Your task to perform on an android device: Go to accessibility settings Image 0: 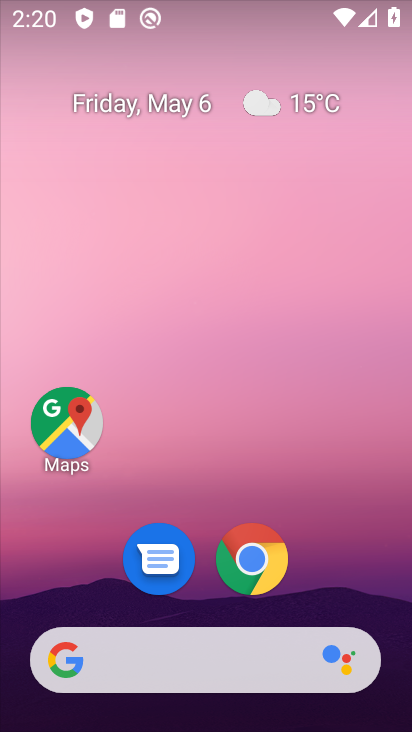
Step 0: drag from (343, 570) to (320, 207)
Your task to perform on an android device: Go to accessibility settings Image 1: 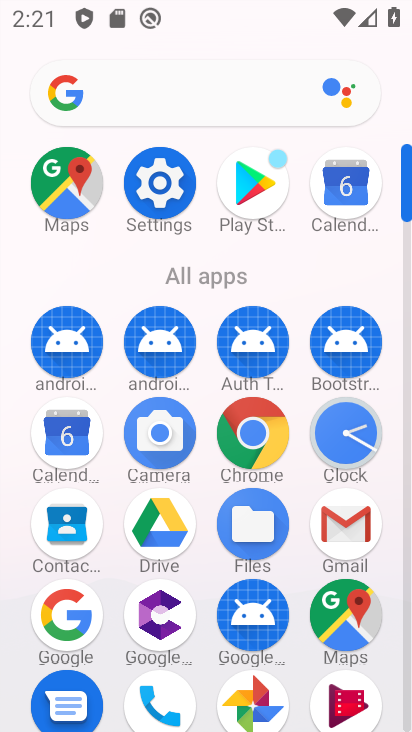
Step 1: click (164, 189)
Your task to perform on an android device: Go to accessibility settings Image 2: 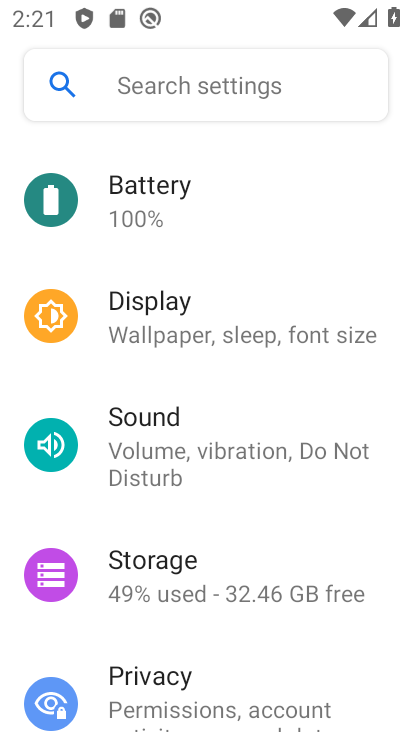
Step 2: drag from (261, 657) to (279, 387)
Your task to perform on an android device: Go to accessibility settings Image 3: 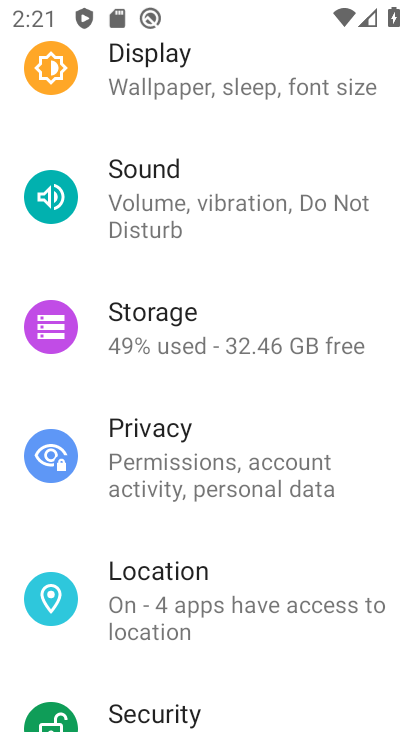
Step 3: drag from (264, 650) to (292, 289)
Your task to perform on an android device: Go to accessibility settings Image 4: 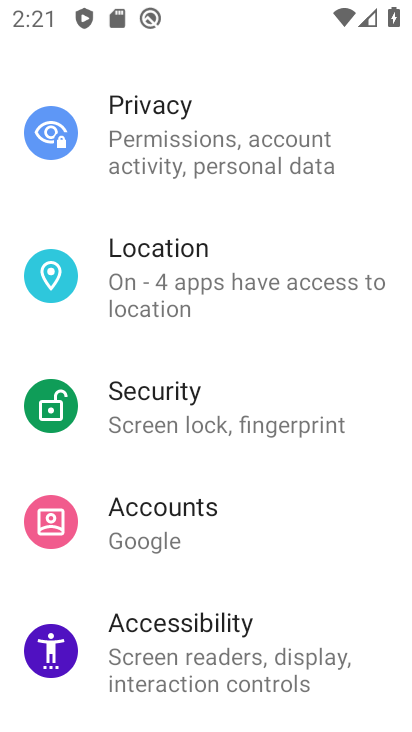
Step 4: drag from (219, 582) to (239, 445)
Your task to perform on an android device: Go to accessibility settings Image 5: 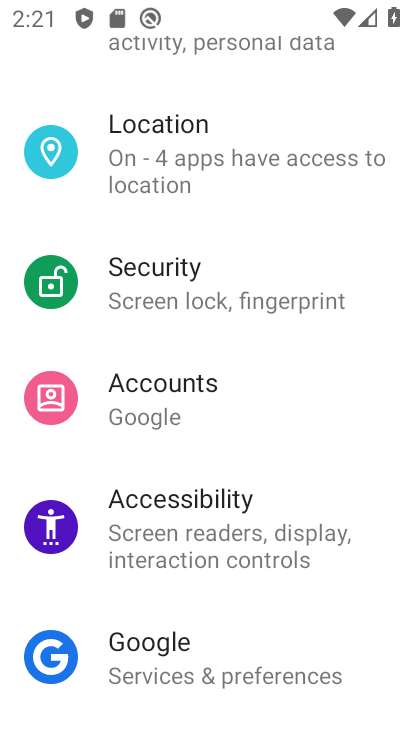
Step 5: click (223, 502)
Your task to perform on an android device: Go to accessibility settings Image 6: 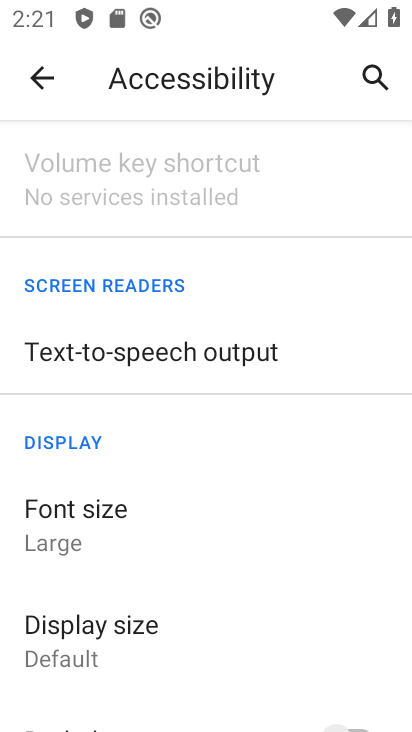
Step 6: task complete